Your task to perform on an android device: Go to sound settings Image 0: 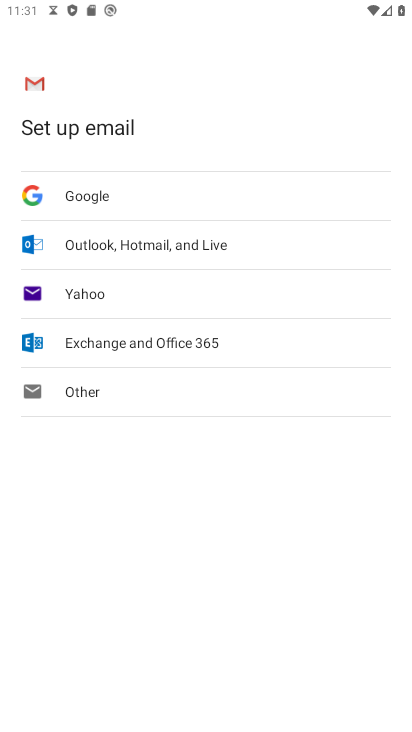
Step 0: press home button
Your task to perform on an android device: Go to sound settings Image 1: 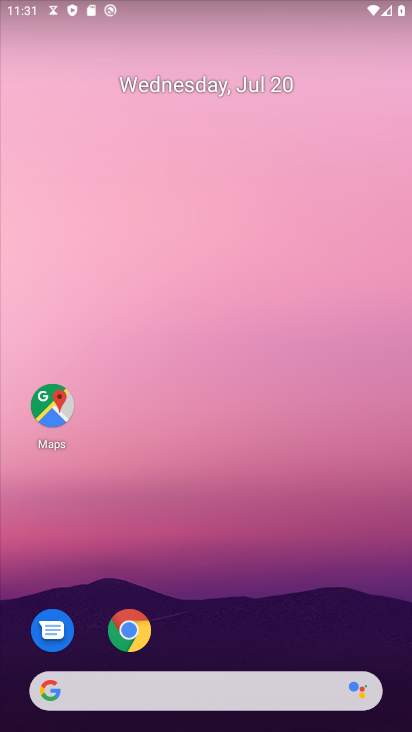
Step 1: drag from (161, 458) to (364, 21)
Your task to perform on an android device: Go to sound settings Image 2: 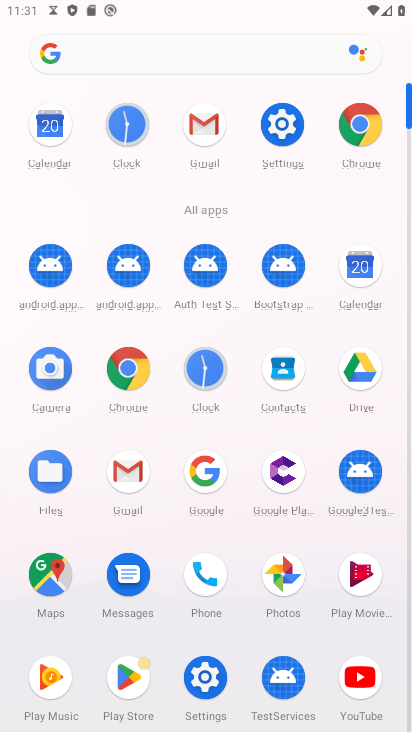
Step 2: click (200, 669)
Your task to perform on an android device: Go to sound settings Image 3: 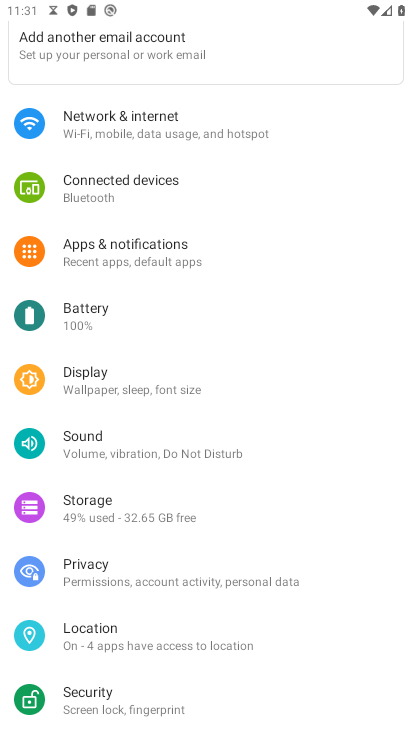
Step 3: click (118, 436)
Your task to perform on an android device: Go to sound settings Image 4: 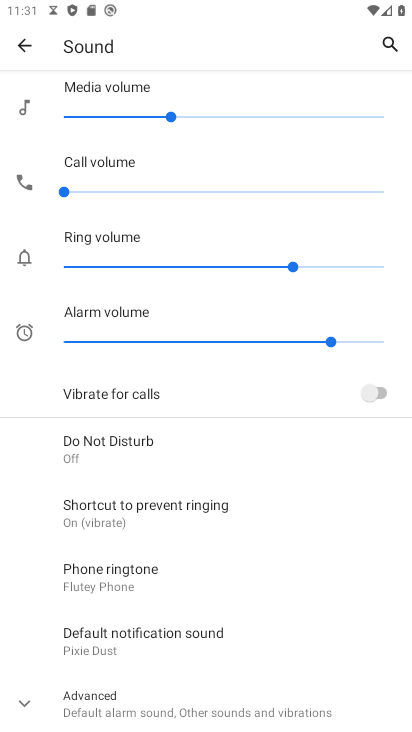
Step 4: task complete